Your task to perform on an android device: stop showing notifications on the lock screen Image 0: 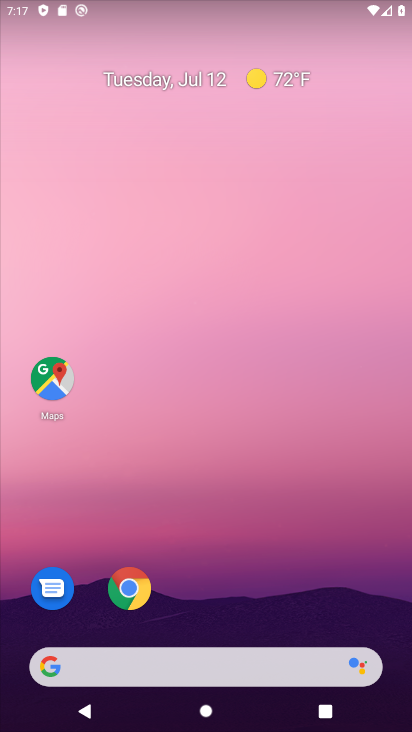
Step 0: drag from (285, 601) to (258, 156)
Your task to perform on an android device: stop showing notifications on the lock screen Image 1: 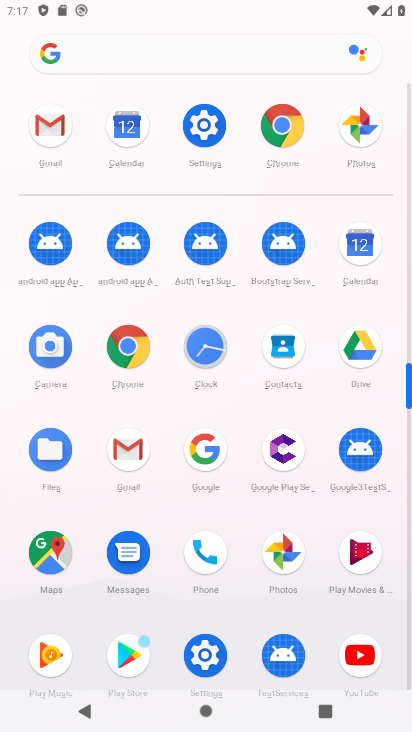
Step 1: click (202, 141)
Your task to perform on an android device: stop showing notifications on the lock screen Image 2: 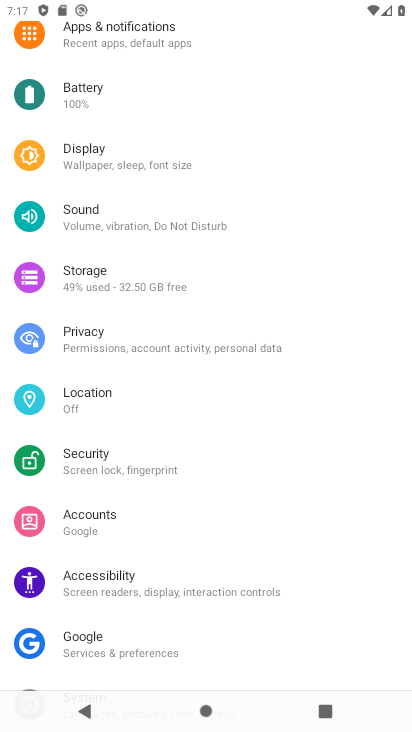
Step 2: drag from (181, 146) to (180, 441)
Your task to perform on an android device: stop showing notifications on the lock screen Image 3: 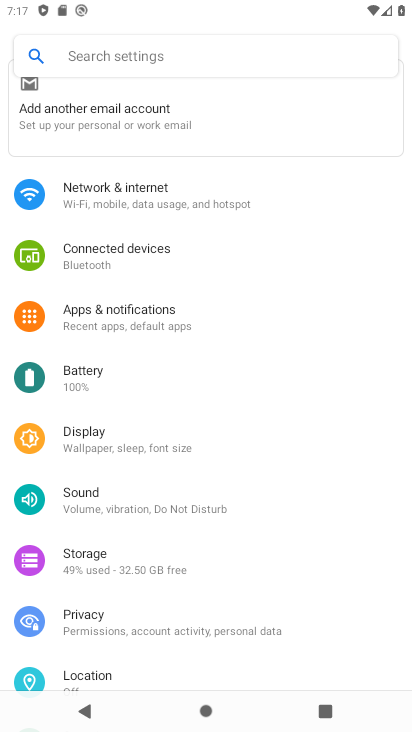
Step 3: click (117, 322)
Your task to perform on an android device: stop showing notifications on the lock screen Image 4: 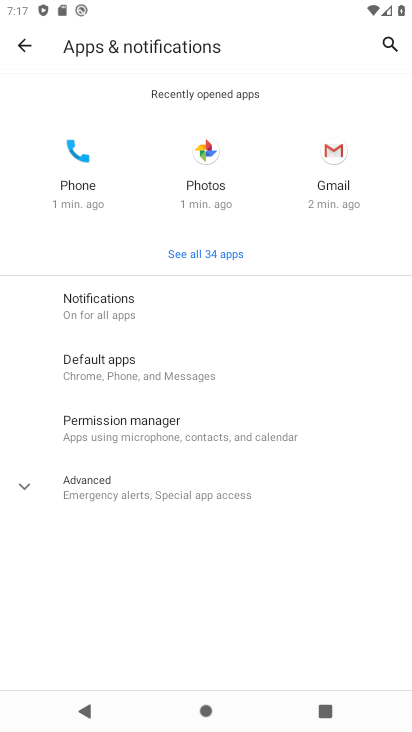
Step 4: click (115, 305)
Your task to perform on an android device: stop showing notifications on the lock screen Image 5: 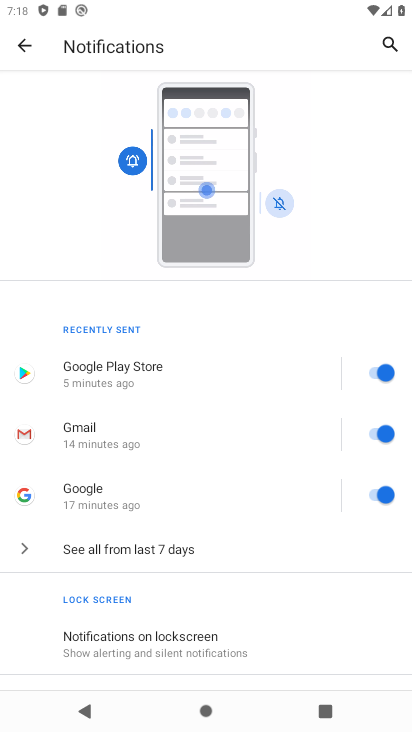
Step 5: click (129, 639)
Your task to perform on an android device: stop showing notifications on the lock screen Image 6: 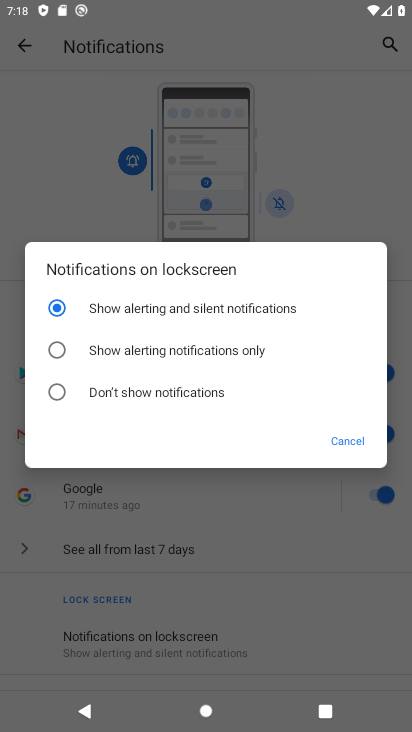
Step 6: click (82, 382)
Your task to perform on an android device: stop showing notifications on the lock screen Image 7: 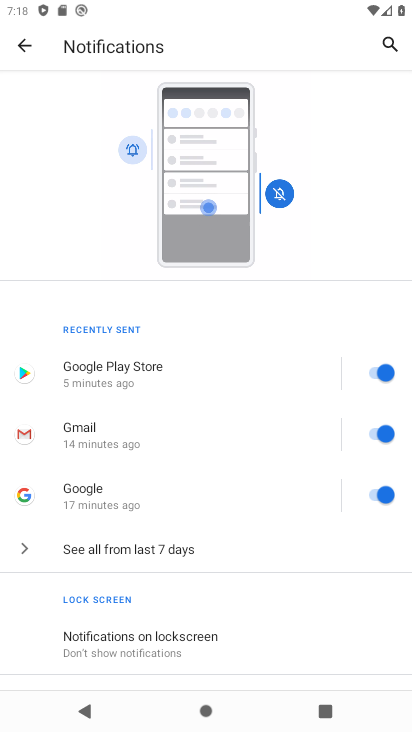
Step 7: task complete